Your task to perform on an android device: turn off data saver in the chrome app Image 0: 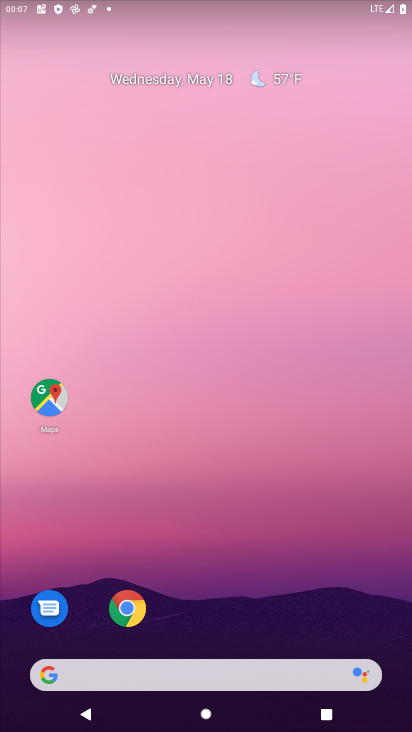
Step 0: click (125, 605)
Your task to perform on an android device: turn off data saver in the chrome app Image 1: 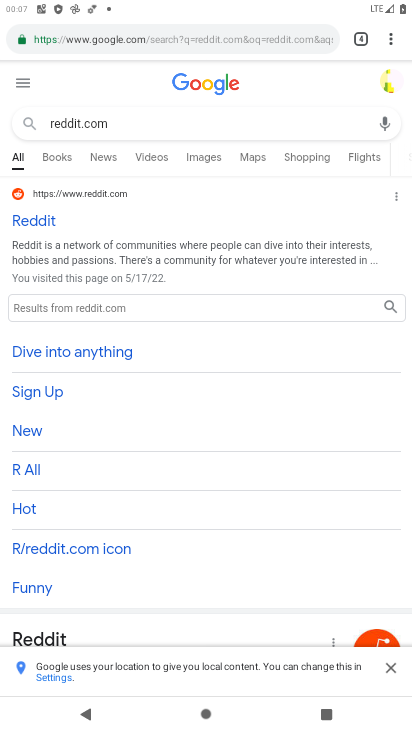
Step 1: click (390, 39)
Your task to perform on an android device: turn off data saver in the chrome app Image 2: 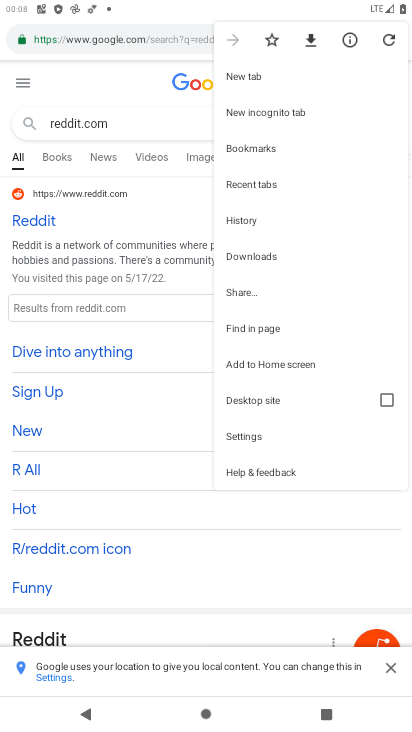
Step 2: click (246, 430)
Your task to perform on an android device: turn off data saver in the chrome app Image 3: 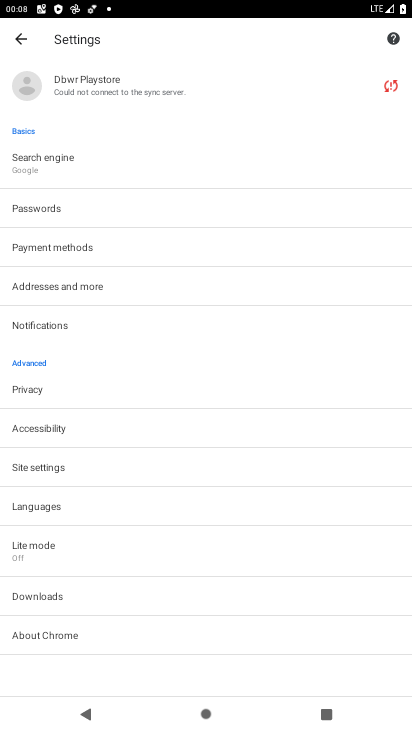
Step 3: click (29, 547)
Your task to perform on an android device: turn off data saver in the chrome app Image 4: 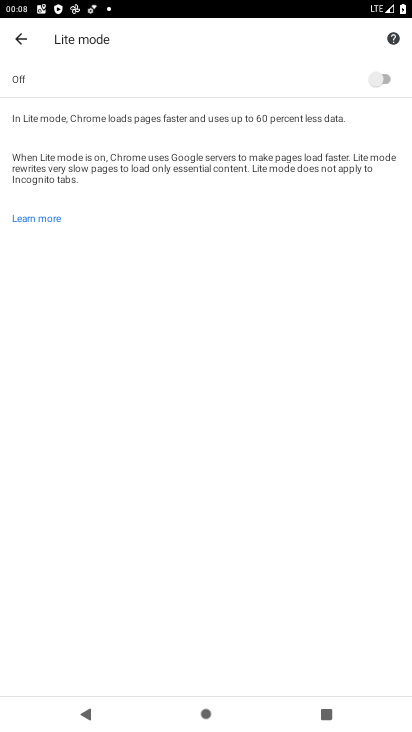
Step 4: task complete